Your task to perform on an android device: star an email in the gmail app Image 0: 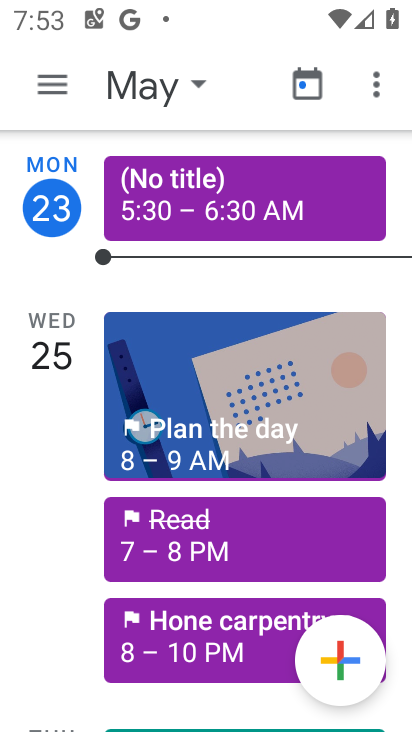
Step 0: press home button
Your task to perform on an android device: star an email in the gmail app Image 1: 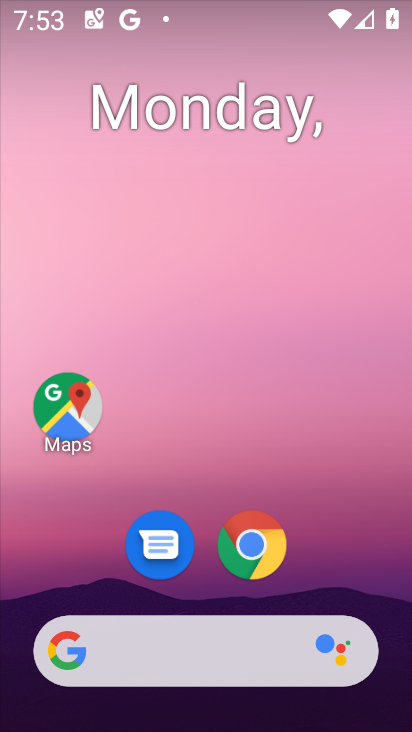
Step 1: click (356, 466)
Your task to perform on an android device: star an email in the gmail app Image 2: 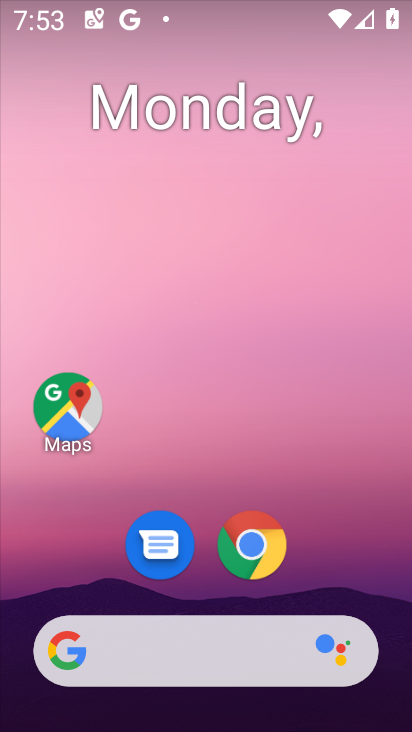
Step 2: drag from (162, 650) to (329, 158)
Your task to perform on an android device: star an email in the gmail app Image 3: 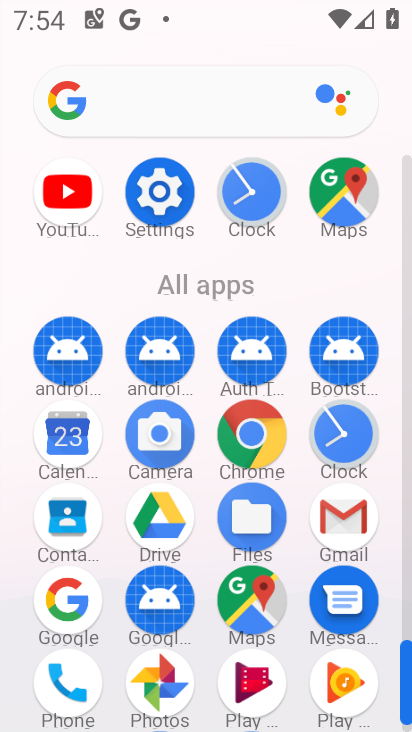
Step 3: click (345, 529)
Your task to perform on an android device: star an email in the gmail app Image 4: 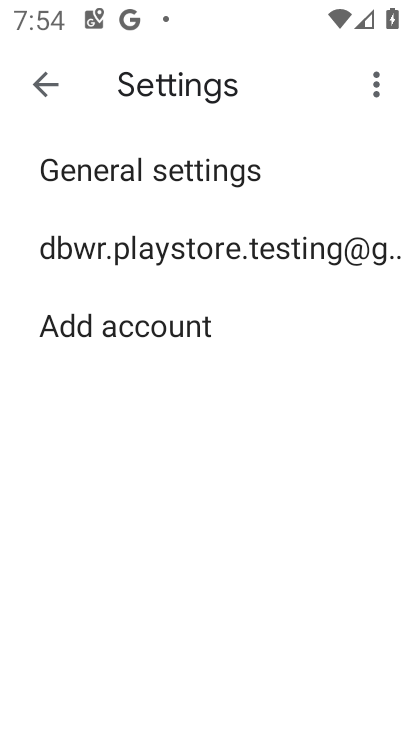
Step 4: click (43, 82)
Your task to perform on an android device: star an email in the gmail app Image 5: 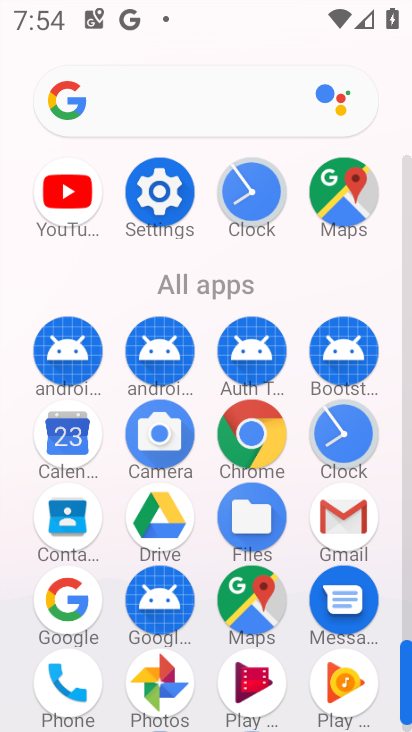
Step 5: click (343, 525)
Your task to perform on an android device: star an email in the gmail app Image 6: 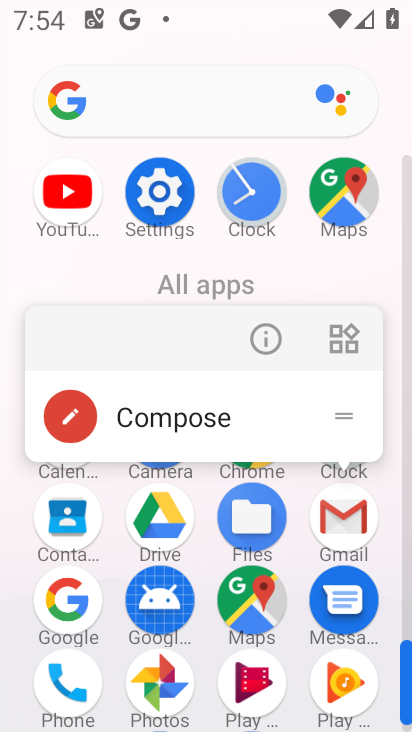
Step 6: click (348, 523)
Your task to perform on an android device: star an email in the gmail app Image 7: 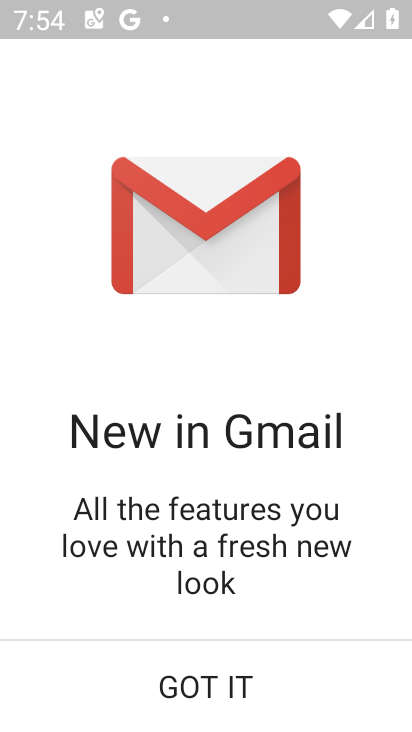
Step 7: click (201, 686)
Your task to perform on an android device: star an email in the gmail app Image 8: 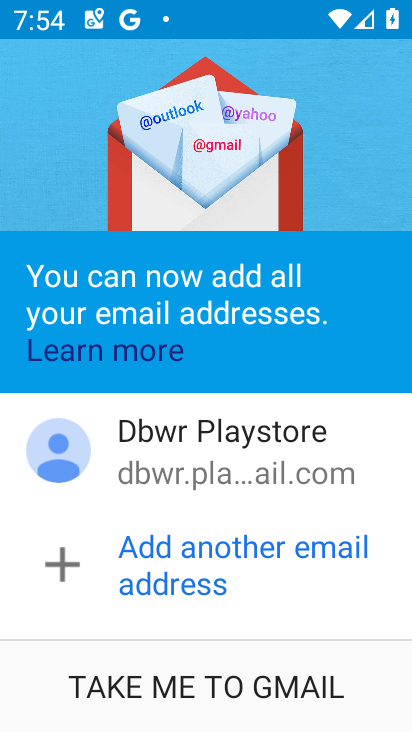
Step 8: click (212, 686)
Your task to perform on an android device: star an email in the gmail app Image 9: 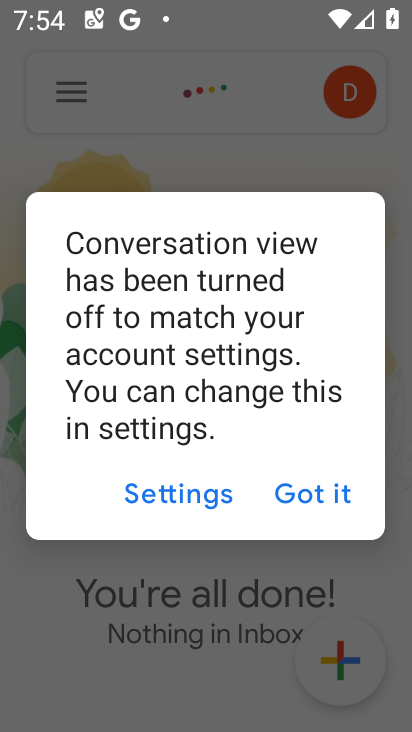
Step 9: click (323, 492)
Your task to perform on an android device: star an email in the gmail app Image 10: 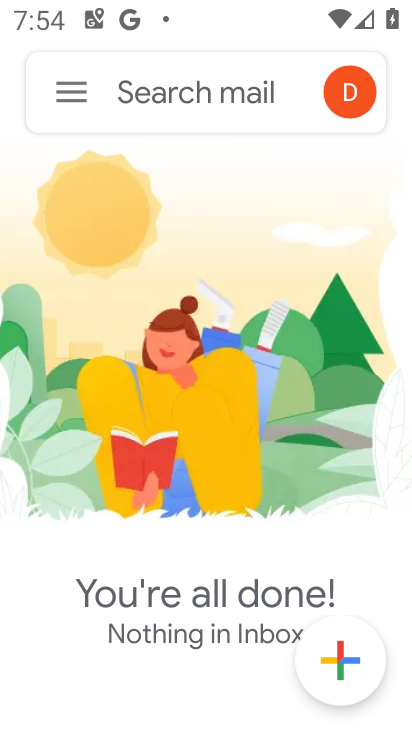
Step 10: task complete